Your task to perform on an android device: Search for vegetarian restaurants on Maps Image 0: 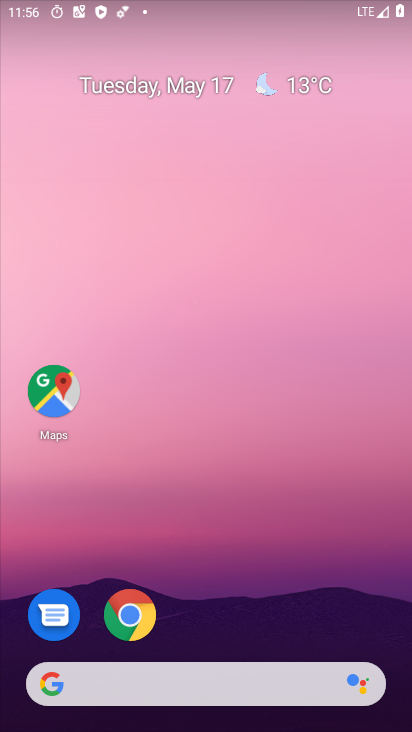
Step 0: press home button
Your task to perform on an android device: Search for vegetarian restaurants on Maps Image 1: 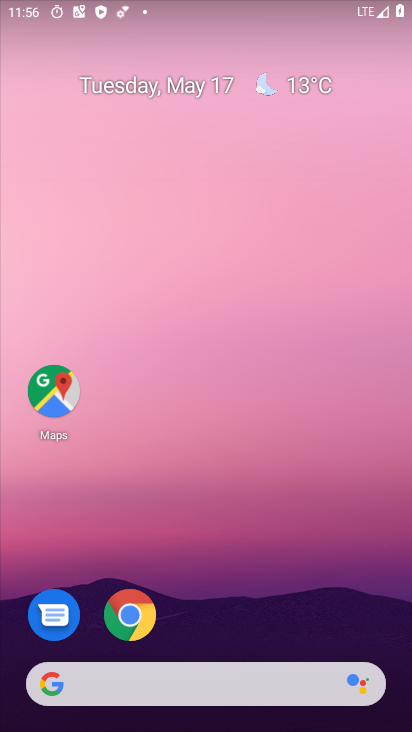
Step 1: click (51, 404)
Your task to perform on an android device: Search for vegetarian restaurants on Maps Image 2: 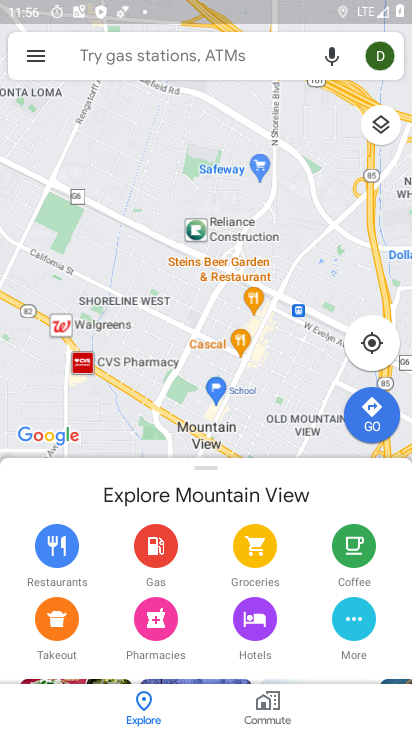
Step 2: click (227, 56)
Your task to perform on an android device: Search for vegetarian restaurants on Maps Image 3: 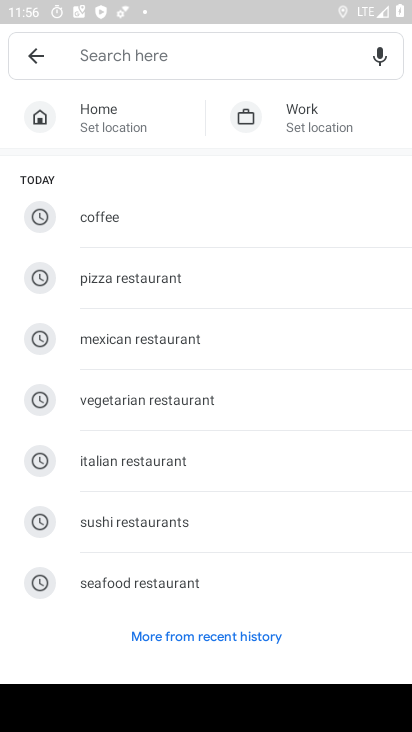
Step 3: click (127, 402)
Your task to perform on an android device: Search for vegetarian restaurants on Maps Image 4: 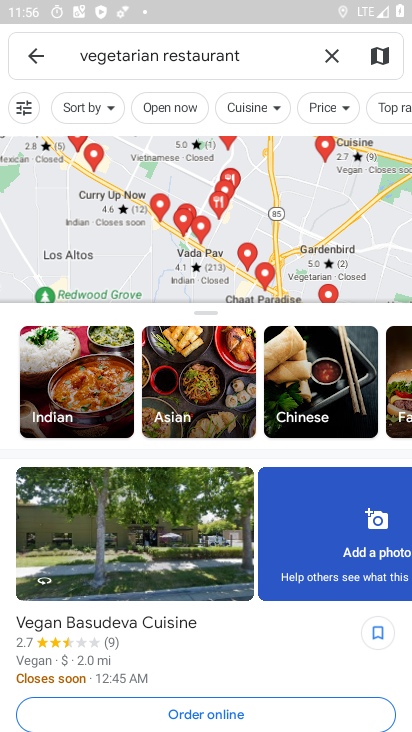
Step 4: task complete